Your task to perform on an android device: Go to Google maps Image 0: 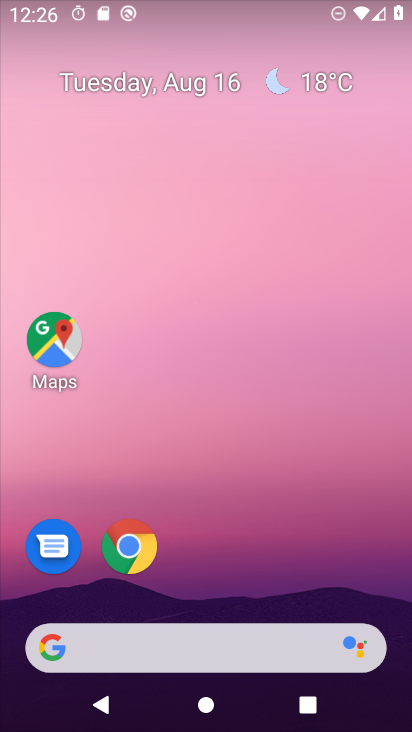
Step 0: drag from (221, 293) to (218, 51)
Your task to perform on an android device: Go to Google maps Image 1: 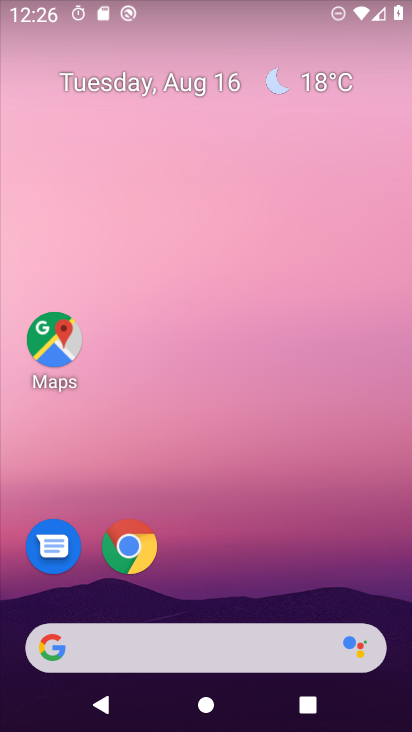
Step 1: drag from (211, 555) to (186, 127)
Your task to perform on an android device: Go to Google maps Image 2: 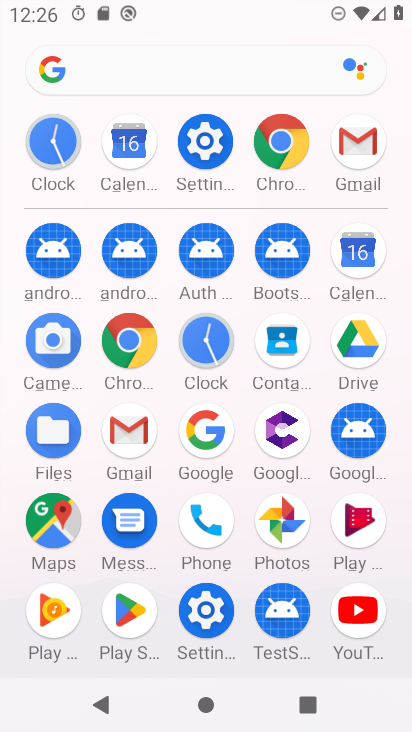
Step 2: click (45, 516)
Your task to perform on an android device: Go to Google maps Image 3: 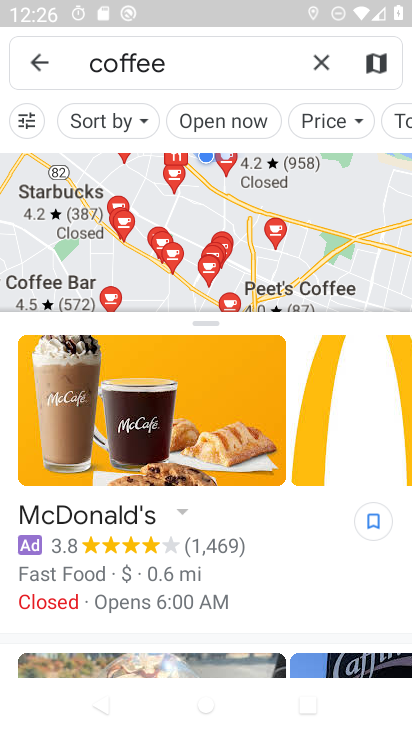
Step 3: task complete